Your task to perform on an android device: delete location history Image 0: 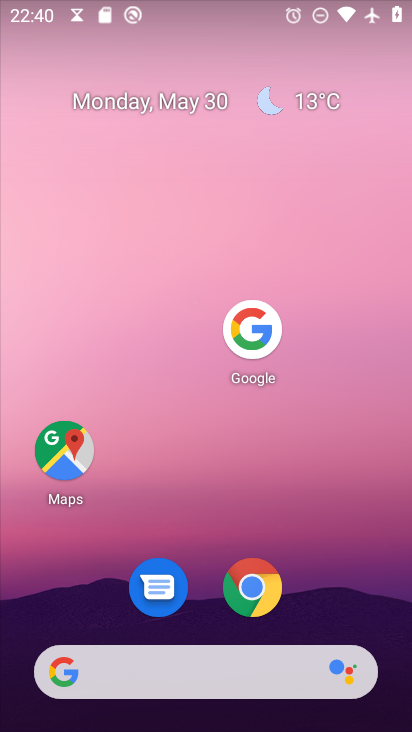
Step 0: click (65, 461)
Your task to perform on an android device: delete location history Image 1: 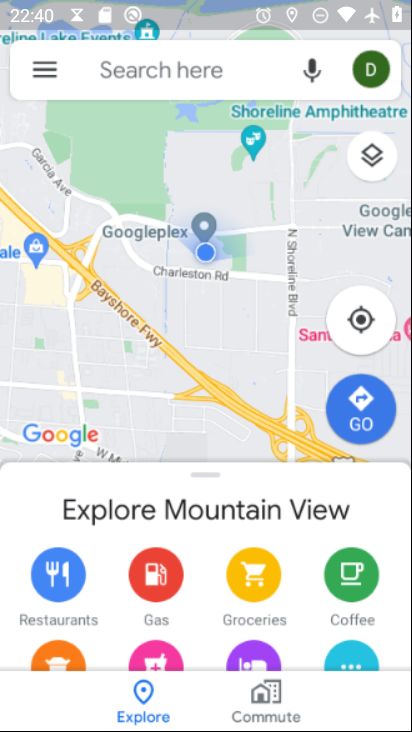
Step 1: click (31, 74)
Your task to perform on an android device: delete location history Image 2: 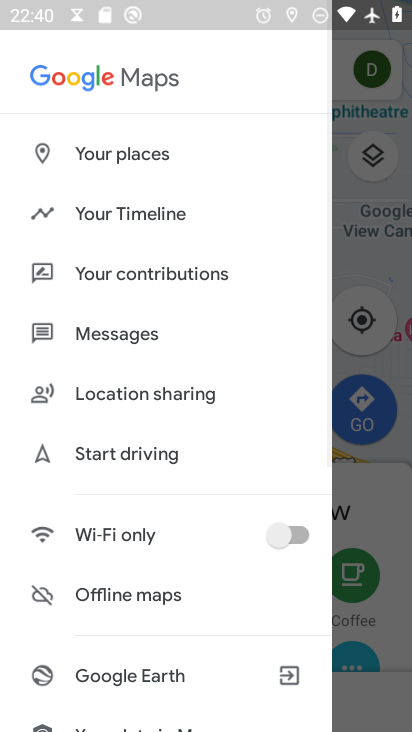
Step 2: click (138, 215)
Your task to perform on an android device: delete location history Image 3: 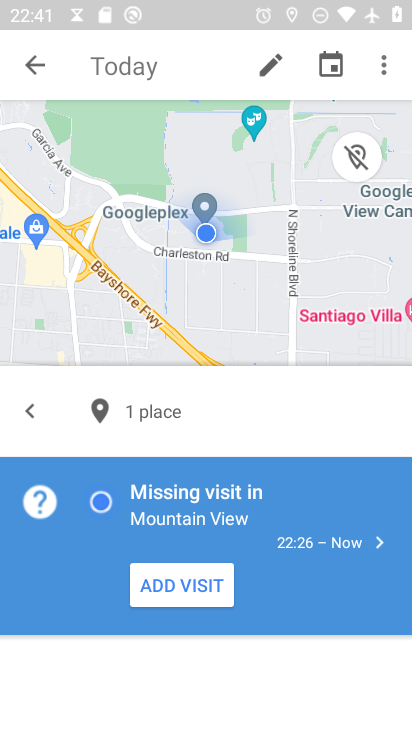
Step 3: click (389, 65)
Your task to perform on an android device: delete location history Image 4: 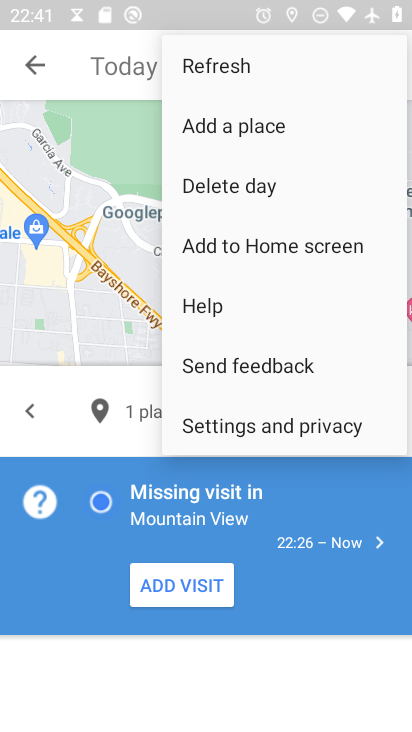
Step 4: click (288, 424)
Your task to perform on an android device: delete location history Image 5: 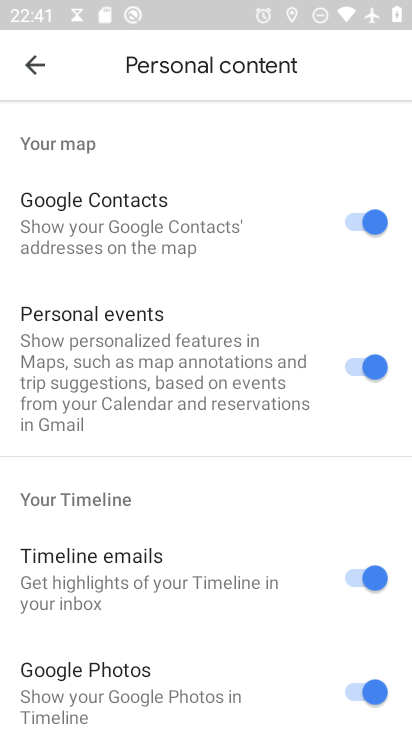
Step 5: drag from (193, 656) to (268, 25)
Your task to perform on an android device: delete location history Image 6: 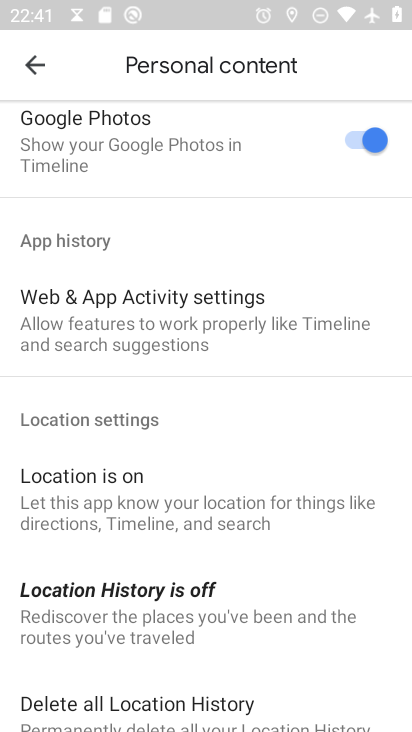
Step 6: drag from (218, 589) to (275, 168)
Your task to perform on an android device: delete location history Image 7: 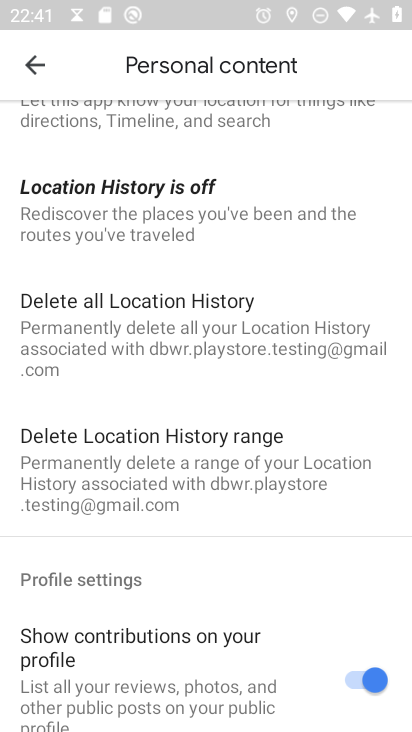
Step 7: click (138, 333)
Your task to perform on an android device: delete location history Image 8: 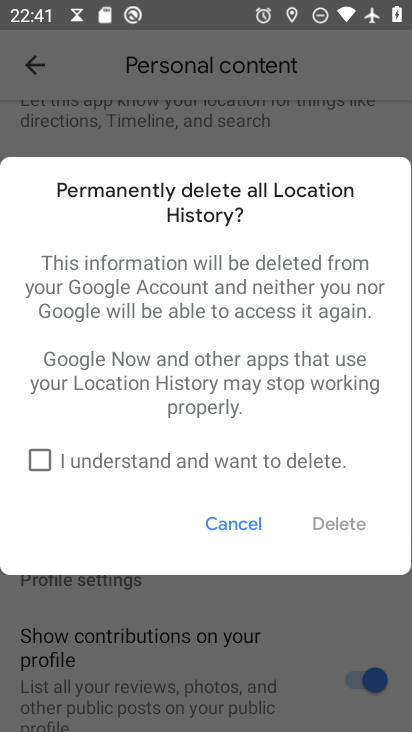
Step 8: click (39, 459)
Your task to perform on an android device: delete location history Image 9: 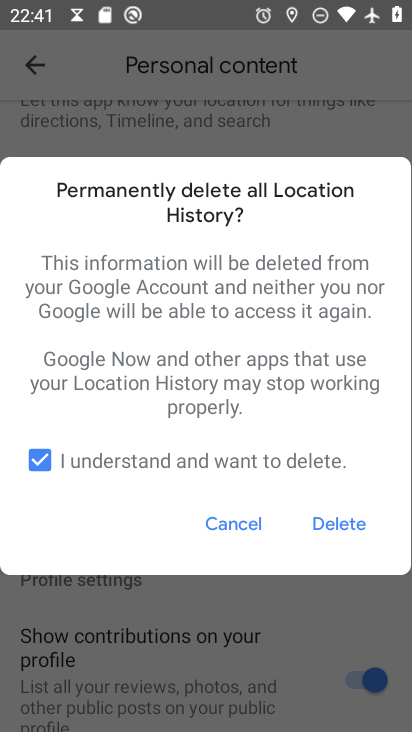
Step 9: click (333, 531)
Your task to perform on an android device: delete location history Image 10: 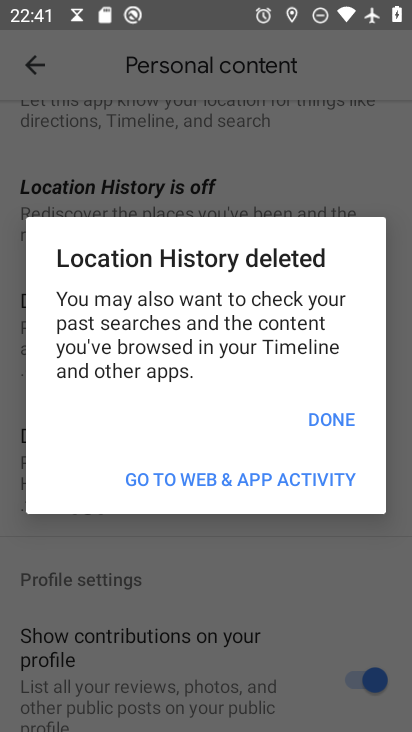
Step 10: click (329, 420)
Your task to perform on an android device: delete location history Image 11: 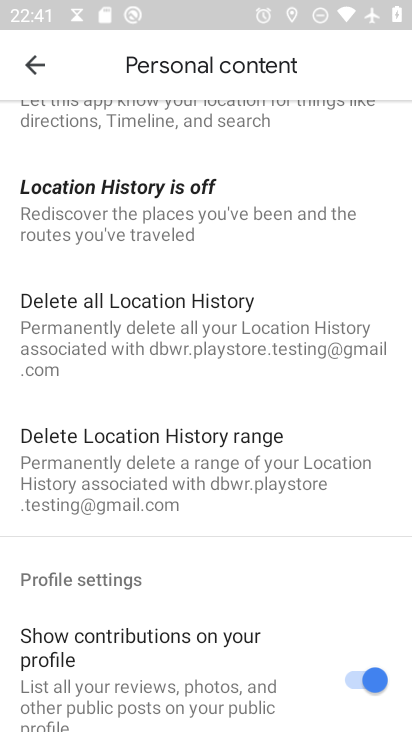
Step 11: task complete